Your task to perform on an android device: turn on bluetooth scan Image 0: 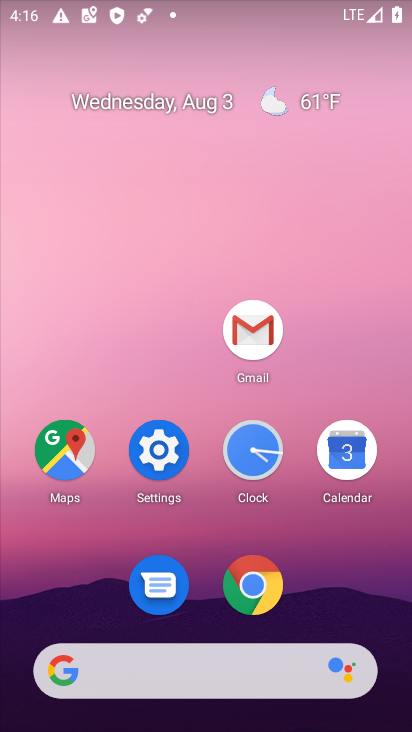
Step 0: click (159, 463)
Your task to perform on an android device: turn on bluetooth scan Image 1: 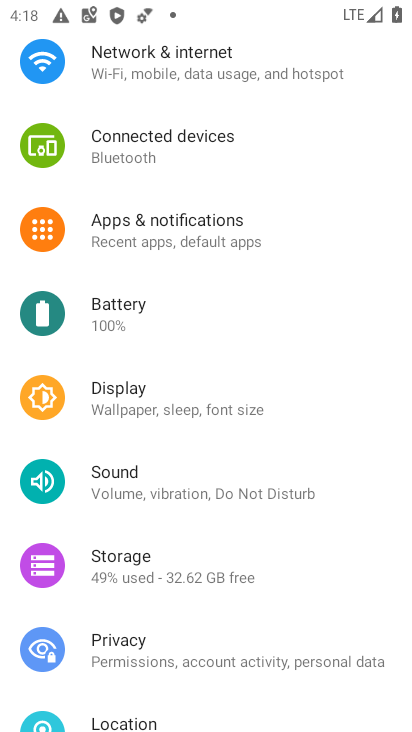
Step 1: click (115, 719)
Your task to perform on an android device: turn on bluetooth scan Image 2: 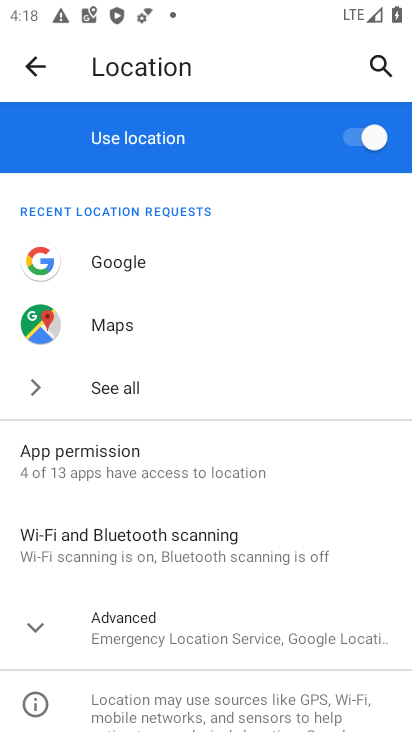
Step 2: click (111, 532)
Your task to perform on an android device: turn on bluetooth scan Image 3: 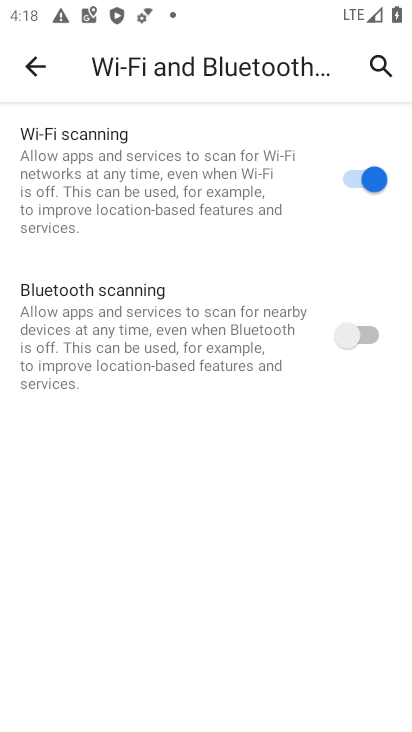
Step 3: click (367, 340)
Your task to perform on an android device: turn on bluetooth scan Image 4: 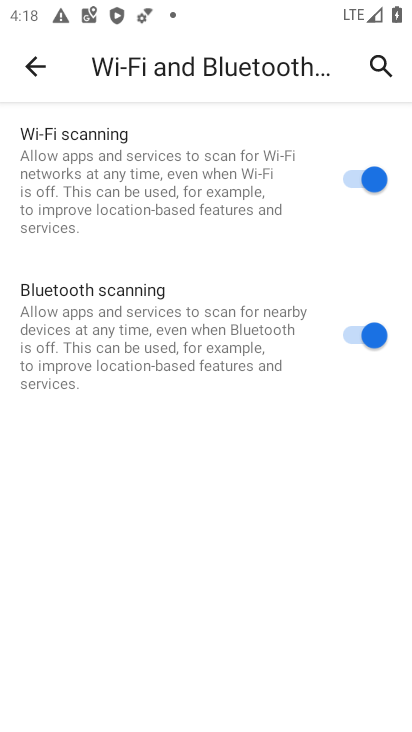
Step 4: task complete